Your task to perform on an android device: Open Youtube and go to "Your channel" Image 0: 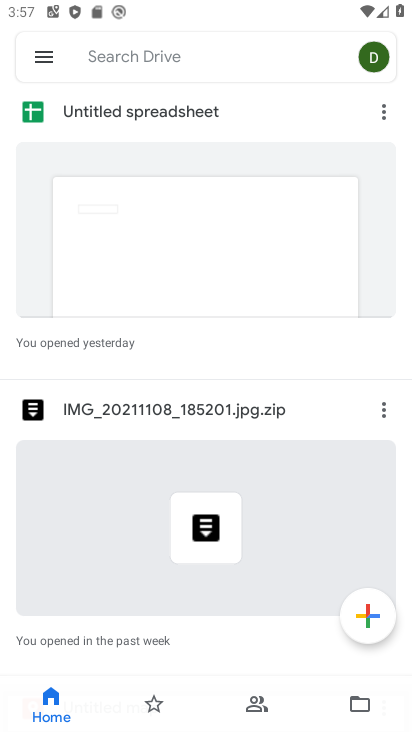
Step 0: drag from (242, 587) to (203, 179)
Your task to perform on an android device: Open Youtube and go to "Your channel" Image 1: 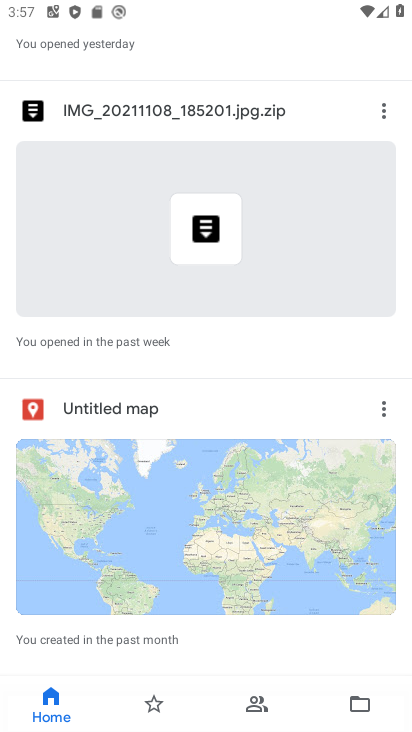
Step 1: press home button
Your task to perform on an android device: Open Youtube and go to "Your channel" Image 2: 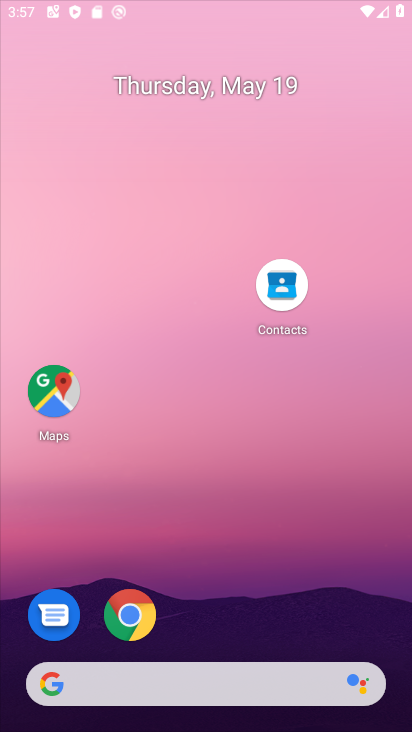
Step 2: drag from (216, 554) to (240, 98)
Your task to perform on an android device: Open Youtube and go to "Your channel" Image 3: 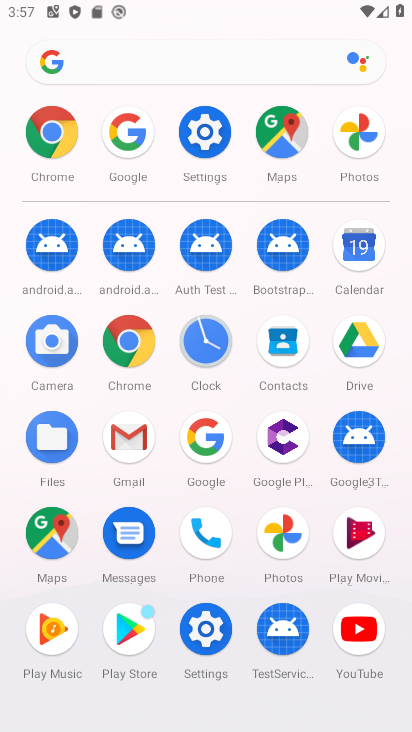
Step 3: drag from (191, 371) to (179, 237)
Your task to perform on an android device: Open Youtube and go to "Your channel" Image 4: 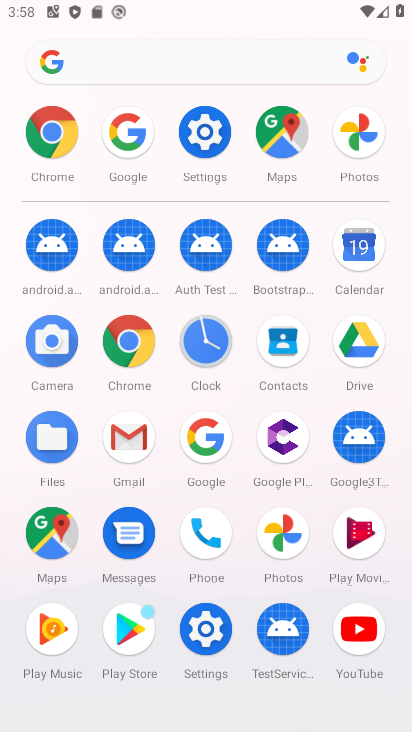
Step 4: click (368, 621)
Your task to perform on an android device: Open Youtube and go to "Your channel" Image 5: 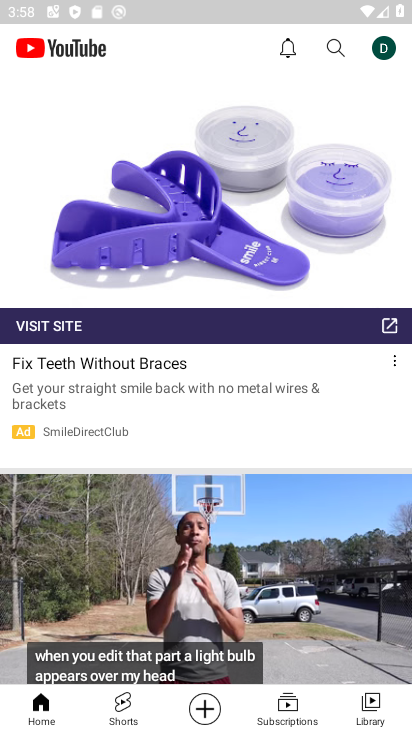
Step 5: click (289, 717)
Your task to perform on an android device: Open Youtube and go to "Your channel" Image 6: 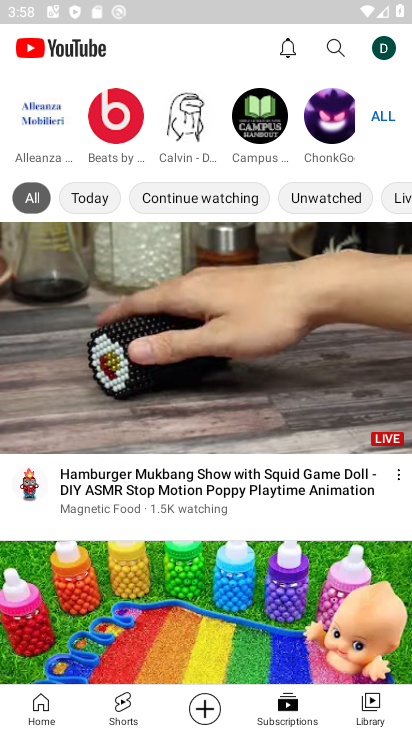
Step 6: click (380, 58)
Your task to perform on an android device: Open Youtube and go to "Your channel" Image 7: 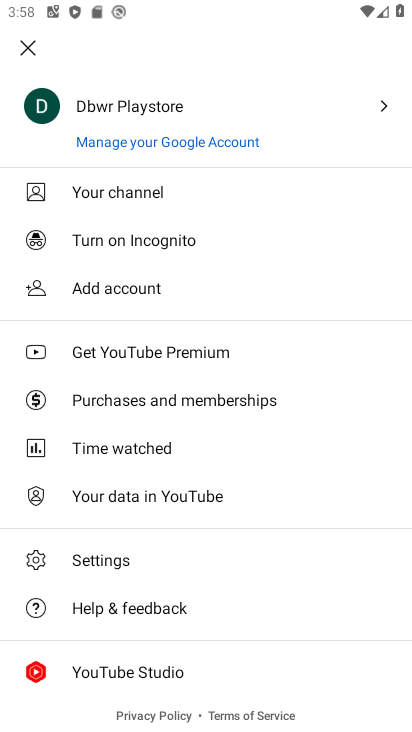
Step 7: click (148, 186)
Your task to perform on an android device: Open Youtube and go to "Your channel" Image 8: 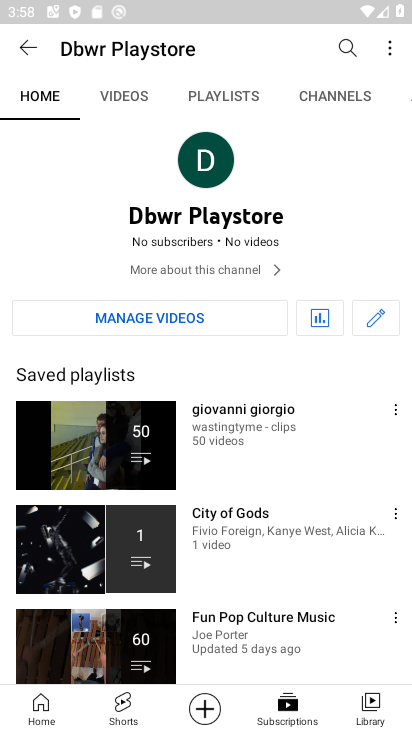
Step 8: task complete